Your task to perform on an android device: turn on the 24-hour format for clock Image 0: 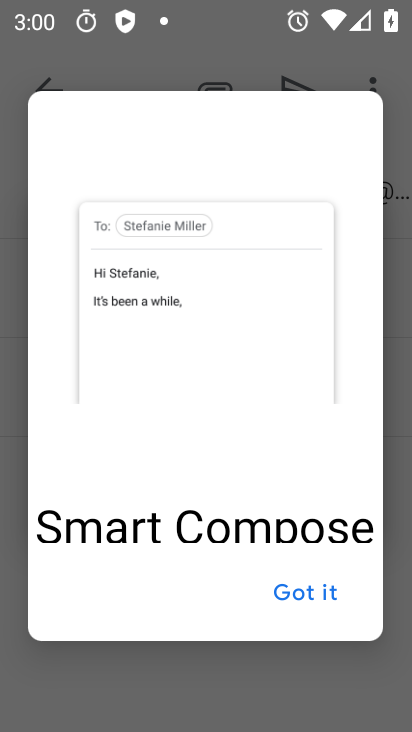
Step 0: press home button
Your task to perform on an android device: turn on the 24-hour format for clock Image 1: 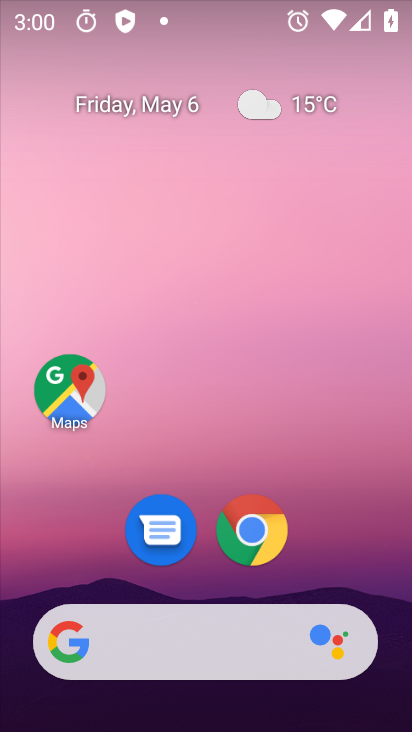
Step 1: drag from (356, 516) to (338, 157)
Your task to perform on an android device: turn on the 24-hour format for clock Image 2: 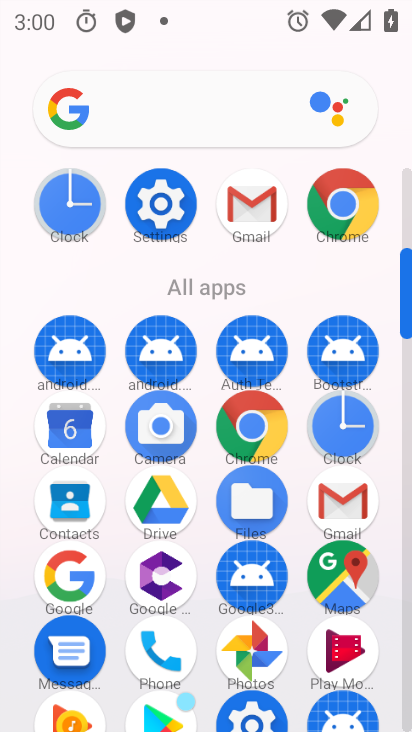
Step 2: click (74, 189)
Your task to perform on an android device: turn on the 24-hour format for clock Image 3: 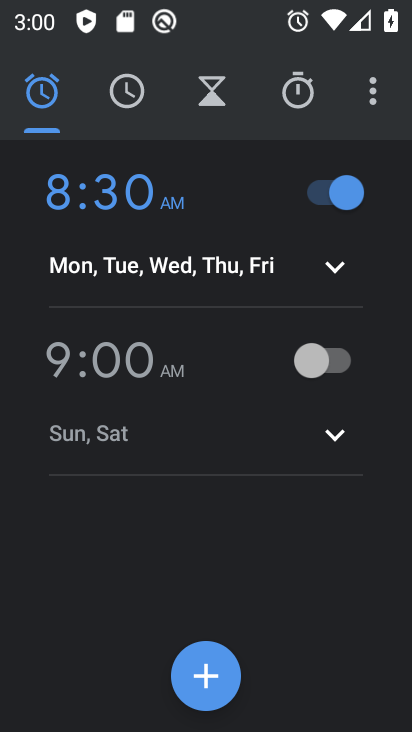
Step 3: click (368, 110)
Your task to perform on an android device: turn on the 24-hour format for clock Image 4: 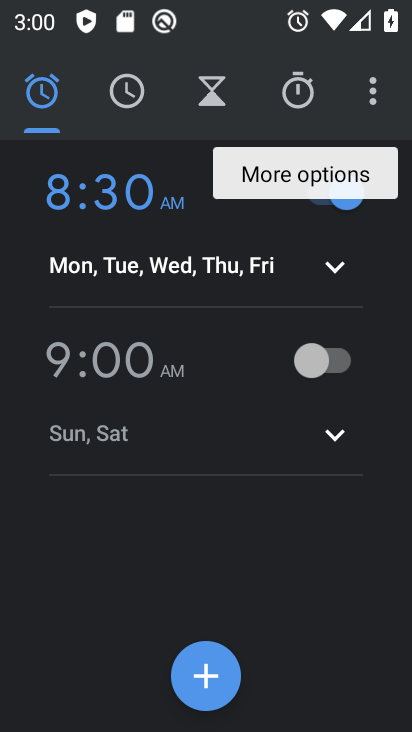
Step 4: click (371, 98)
Your task to perform on an android device: turn on the 24-hour format for clock Image 5: 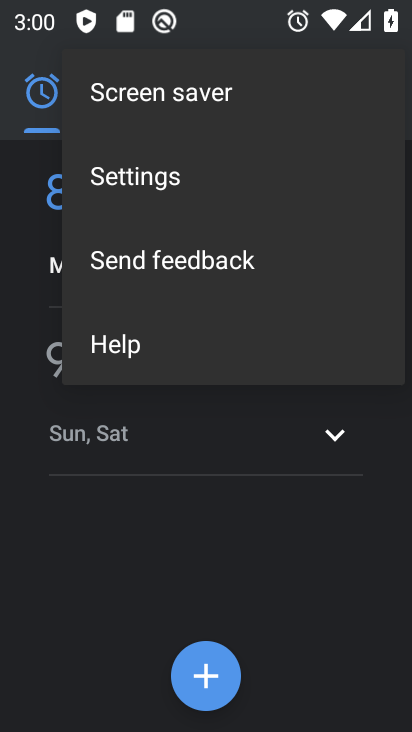
Step 5: click (145, 188)
Your task to perform on an android device: turn on the 24-hour format for clock Image 6: 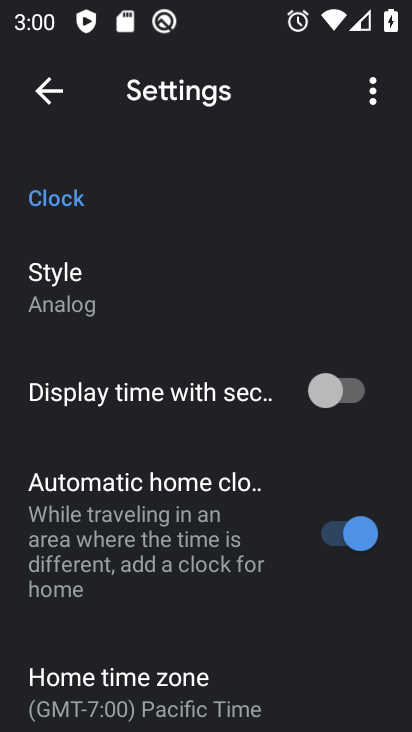
Step 6: drag from (197, 555) to (189, 230)
Your task to perform on an android device: turn on the 24-hour format for clock Image 7: 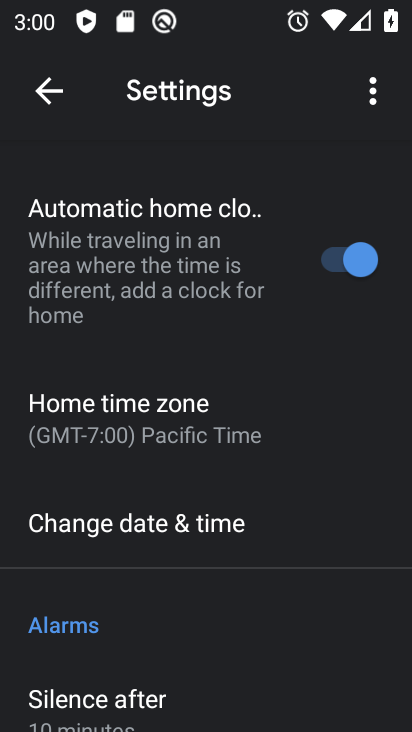
Step 7: click (149, 530)
Your task to perform on an android device: turn on the 24-hour format for clock Image 8: 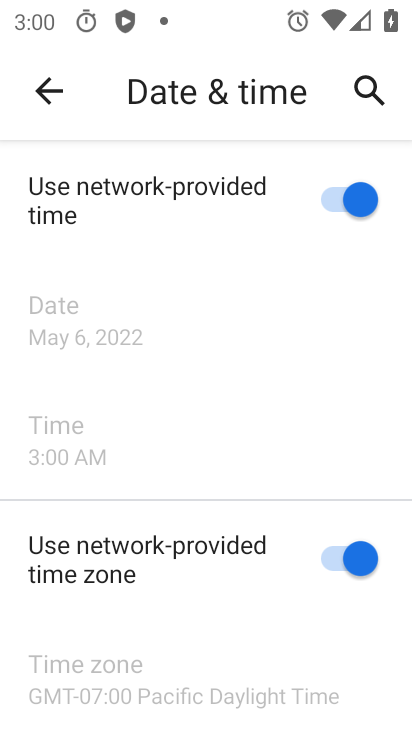
Step 8: drag from (170, 655) to (219, 228)
Your task to perform on an android device: turn on the 24-hour format for clock Image 9: 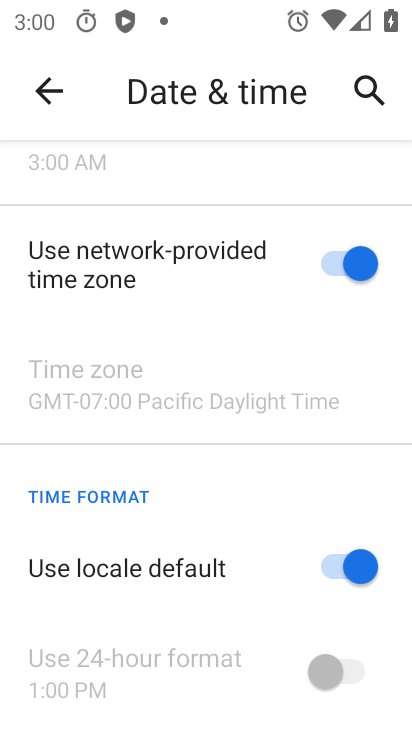
Step 9: drag from (204, 622) to (256, 241)
Your task to perform on an android device: turn on the 24-hour format for clock Image 10: 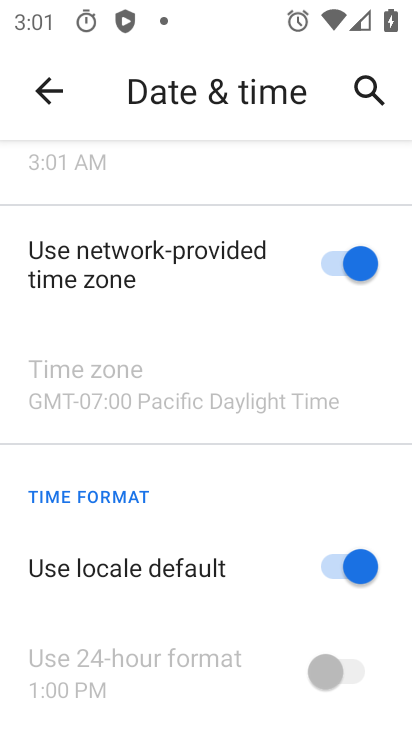
Step 10: click (326, 575)
Your task to perform on an android device: turn on the 24-hour format for clock Image 11: 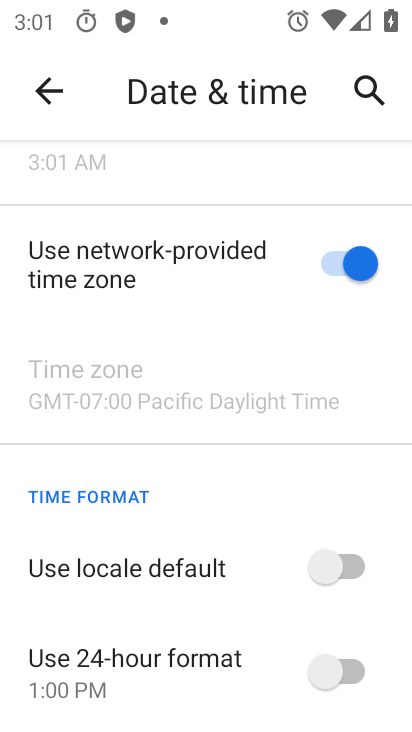
Step 11: task complete